Your task to perform on an android device: find photos in the google photos app Image 0: 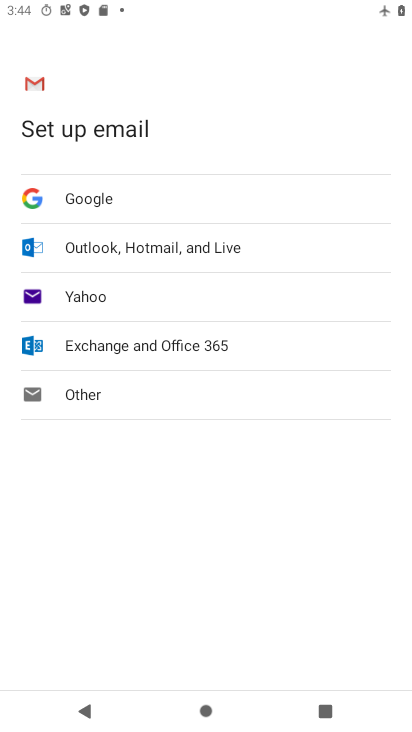
Step 0: press home button
Your task to perform on an android device: find photos in the google photos app Image 1: 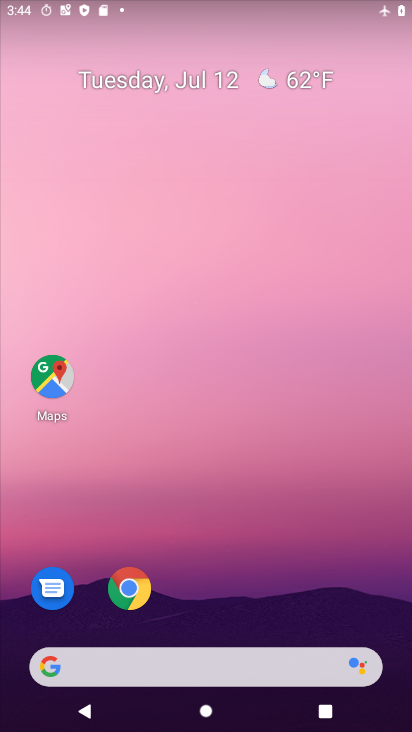
Step 1: drag from (254, 623) to (177, 1)
Your task to perform on an android device: find photos in the google photos app Image 2: 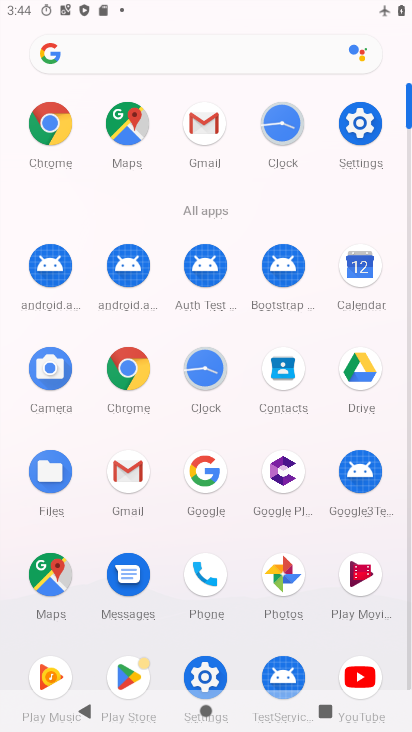
Step 2: click (296, 582)
Your task to perform on an android device: find photos in the google photos app Image 3: 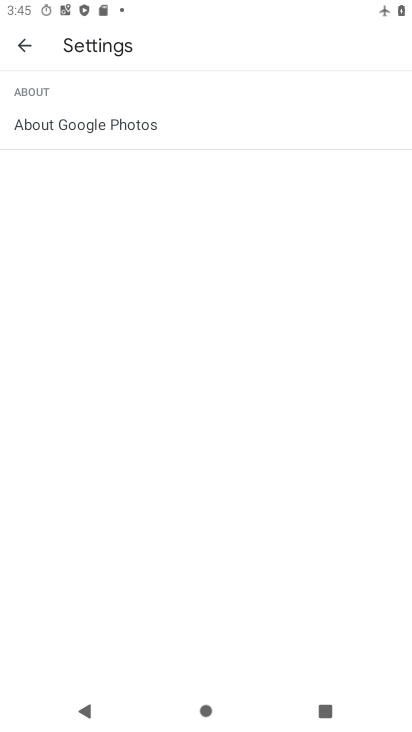
Step 3: click (23, 50)
Your task to perform on an android device: find photos in the google photos app Image 4: 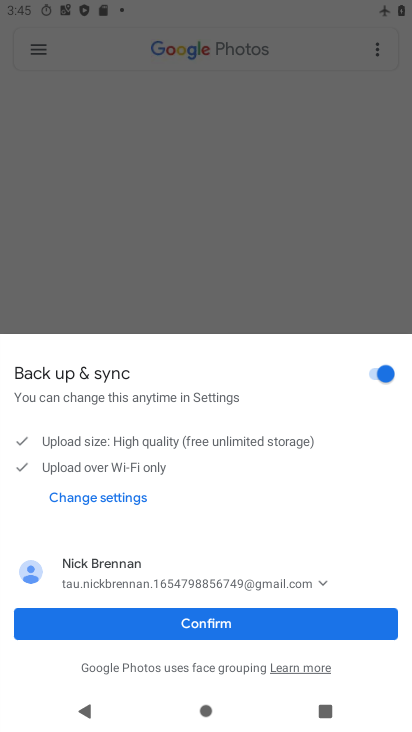
Step 4: click (281, 630)
Your task to perform on an android device: find photos in the google photos app Image 5: 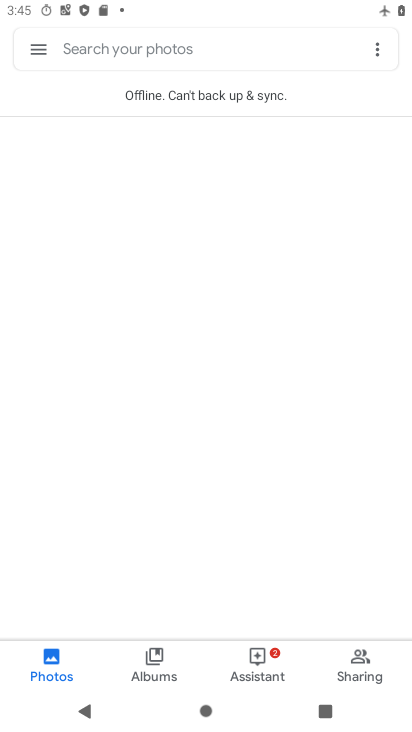
Step 5: task complete